Your task to perform on an android device: Set the phone to "Do not disturb". Image 0: 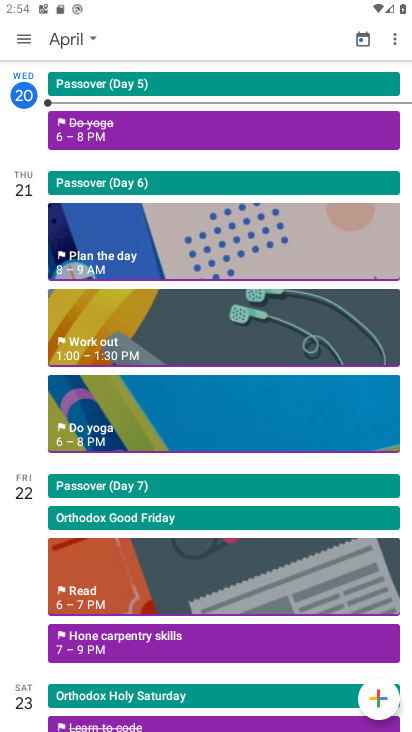
Step 0: press home button
Your task to perform on an android device: Set the phone to "Do not disturb". Image 1: 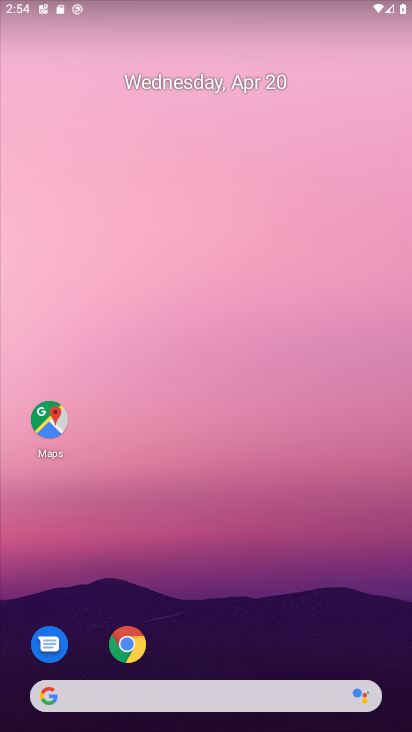
Step 1: drag from (247, 552) to (285, 0)
Your task to perform on an android device: Set the phone to "Do not disturb". Image 2: 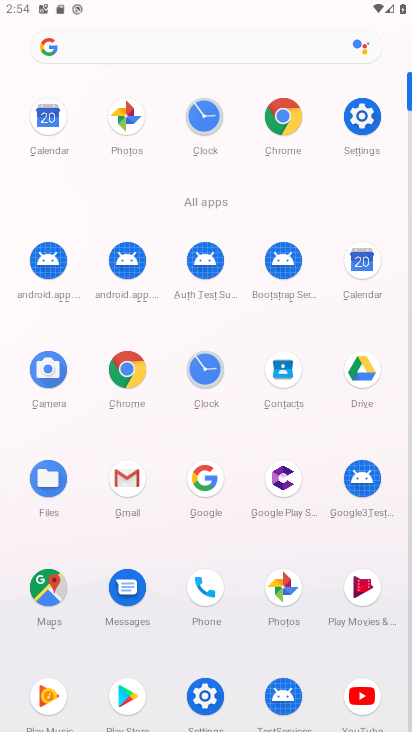
Step 2: click (358, 128)
Your task to perform on an android device: Set the phone to "Do not disturb". Image 3: 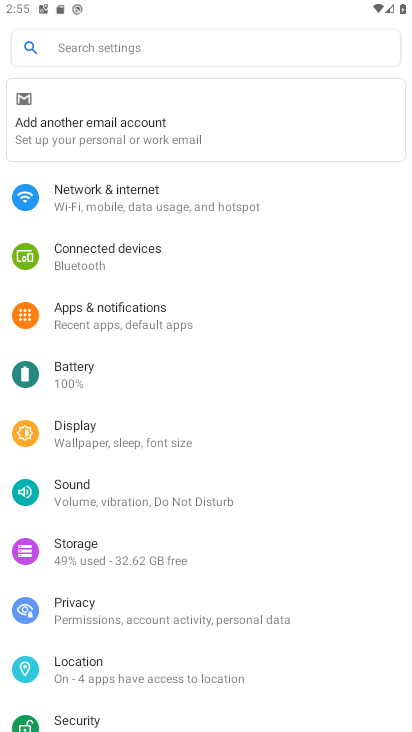
Step 3: click (146, 490)
Your task to perform on an android device: Set the phone to "Do not disturb". Image 4: 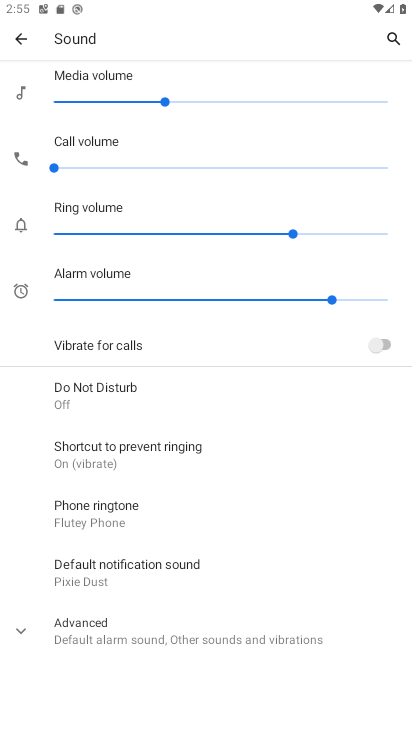
Step 4: click (131, 388)
Your task to perform on an android device: Set the phone to "Do not disturb". Image 5: 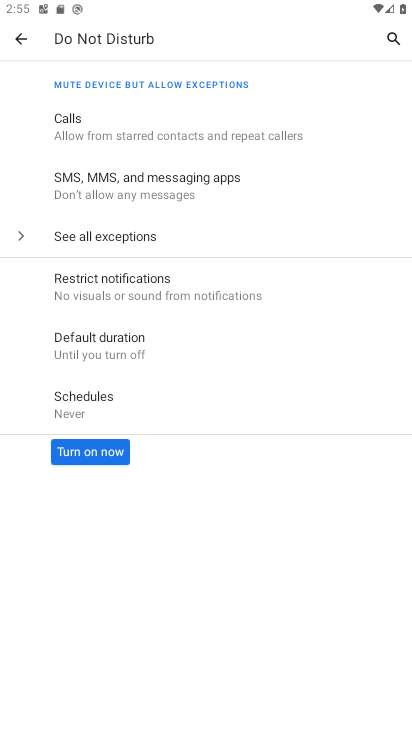
Step 5: click (89, 451)
Your task to perform on an android device: Set the phone to "Do not disturb". Image 6: 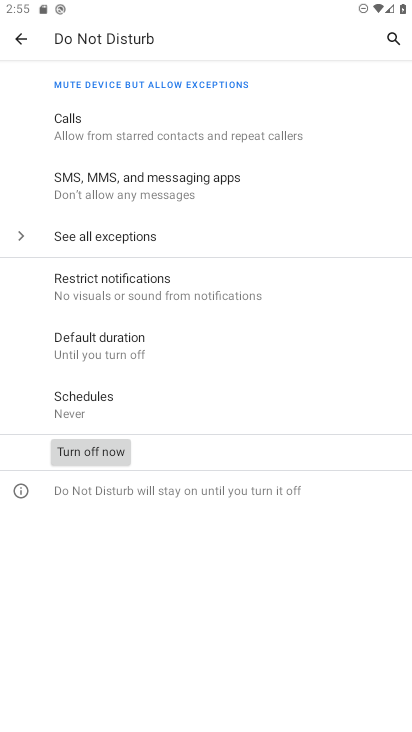
Step 6: task complete